Your task to perform on an android device: Open location settings Image 0: 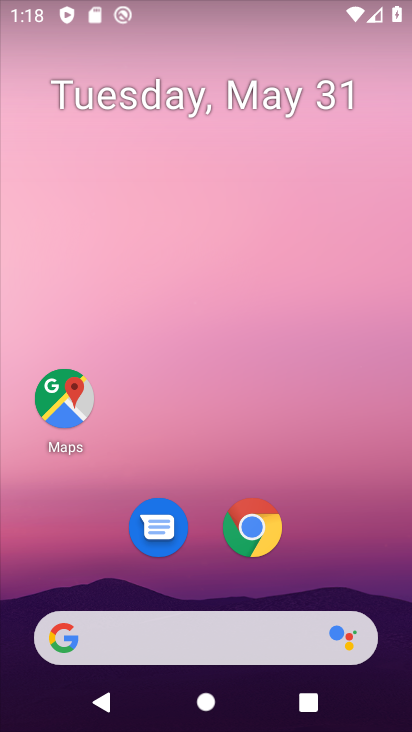
Step 0: drag from (335, 476) to (313, 84)
Your task to perform on an android device: Open location settings Image 1: 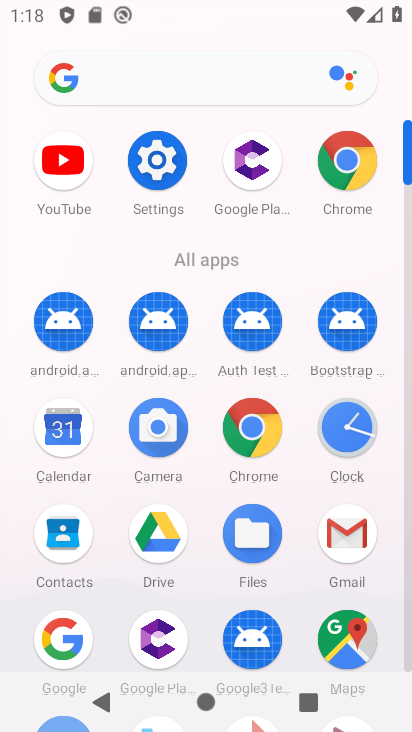
Step 1: click (159, 168)
Your task to perform on an android device: Open location settings Image 2: 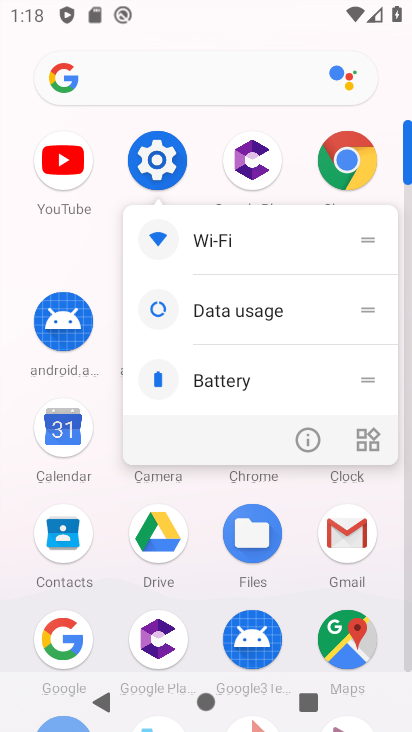
Step 2: click (159, 169)
Your task to perform on an android device: Open location settings Image 3: 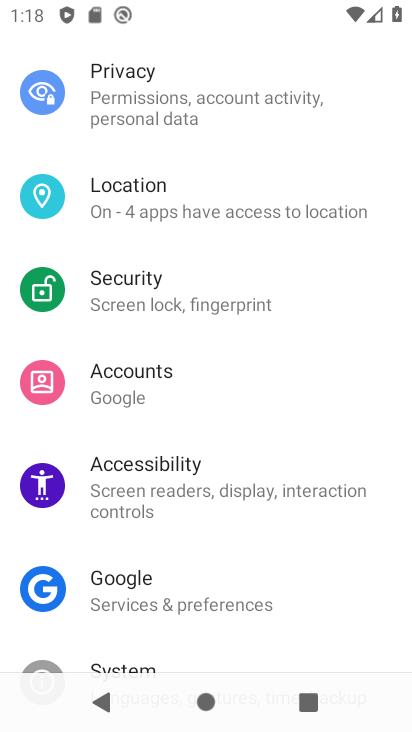
Step 3: click (133, 215)
Your task to perform on an android device: Open location settings Image 4: 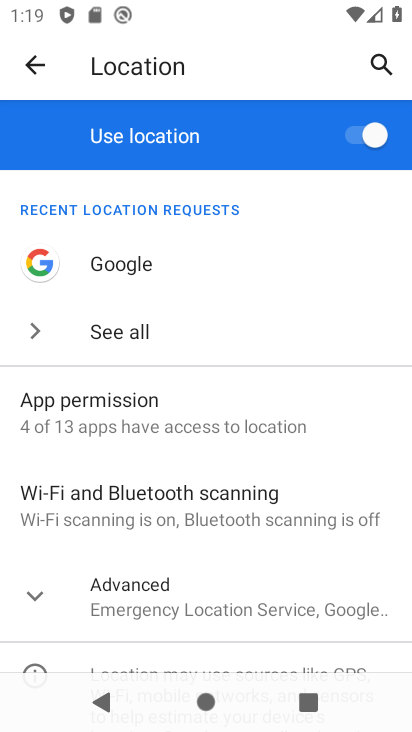
Step 4: task complete